Your task to perform on an android device: Check the weather Image 0: 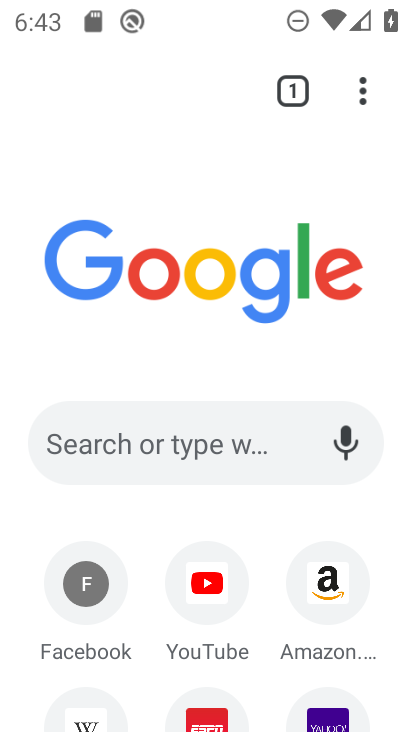
Step 0: click (171, 457)
Your task to perform on an android device: Check the weather Image 1: 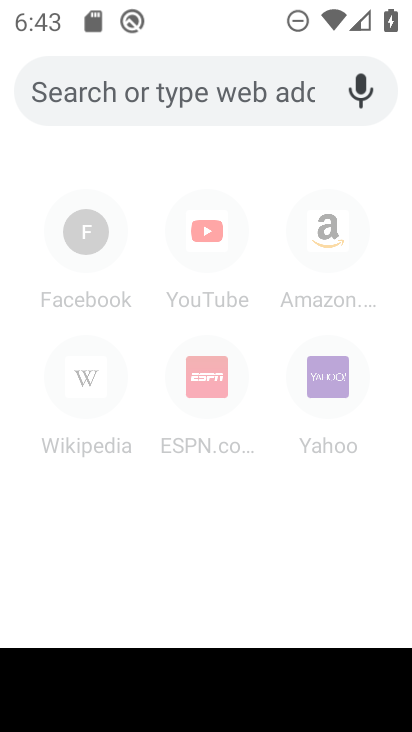
Step 1: press home button
Your task to perform on an android device: Check the weather Image 2: 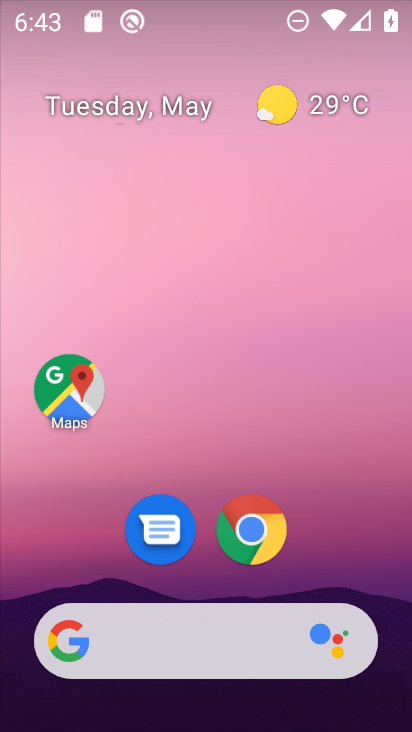
Step 2: drag from (282, 448) to (225, 52)
Your task to perform on an android device: Check the weather Image 3: 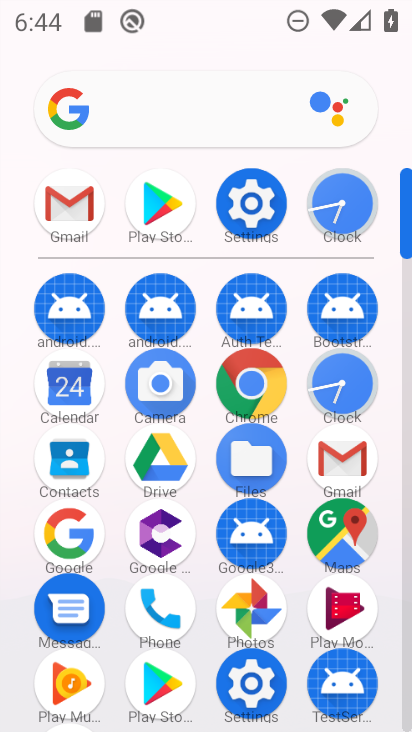
Step 3: click (84, 534)
Your task to perform on an android device: Check the weather Image 4: 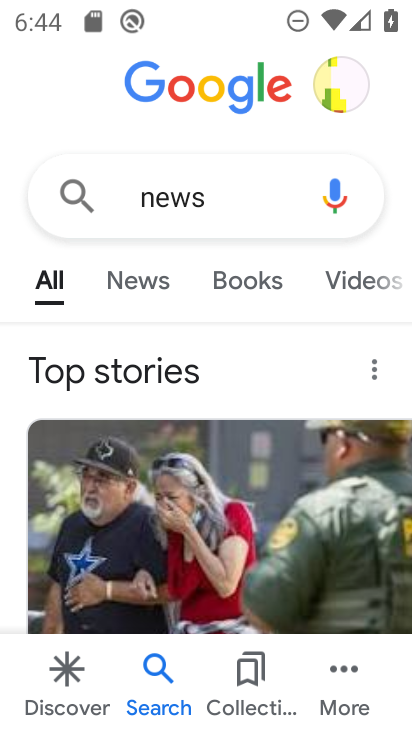
Step 4: press back button
Your task to perform on an android device: Check the weather Image 5: 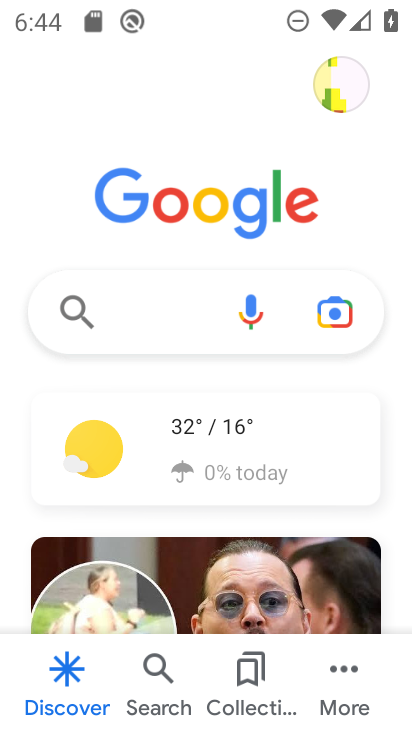
Step 5: click (195, 182)
Your task to perform on an android device: Check the weather Image 6: 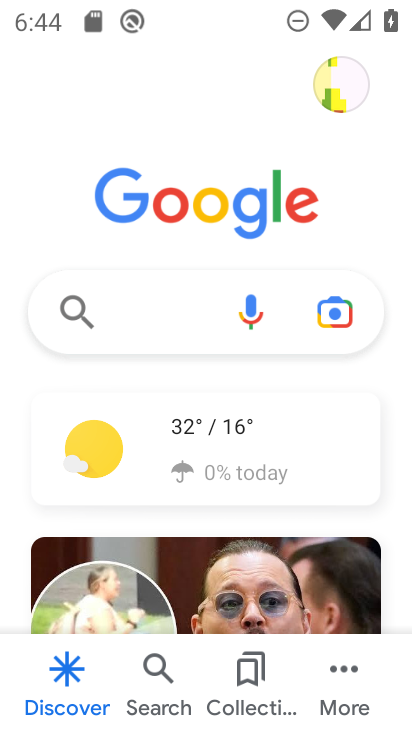
Step 6: click (125, 327)
Your task to perform on an android device: Check the weather Image 7: 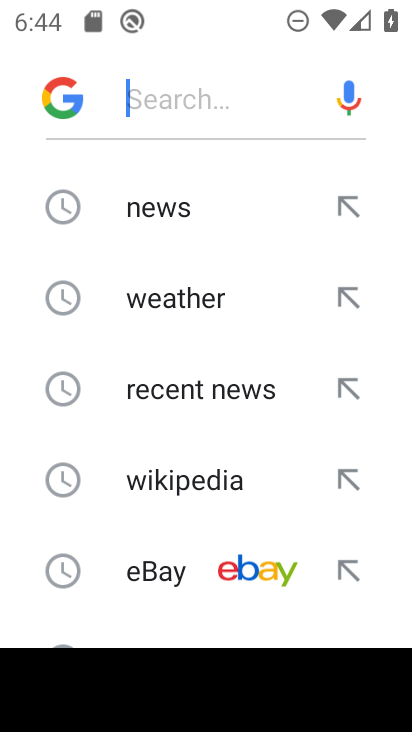
Step 7: click (161, 296)
Your task to perform on an android device: Check the weather Image 8: 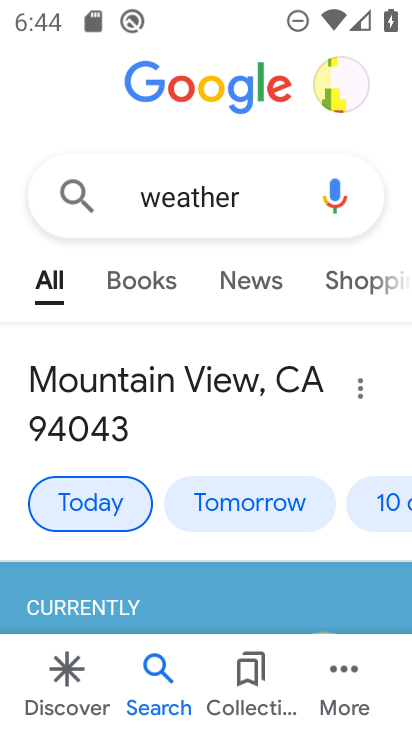
Step 8: task complete